Your task to perform on an android device: See recent photos Image 0: 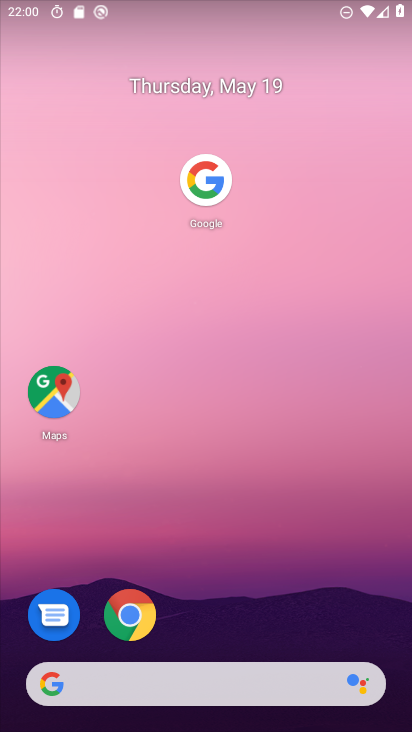
Step 0: drag from (236, 611) to (269, 38)
Your task to perform on an android device: See recent photos Image 1: 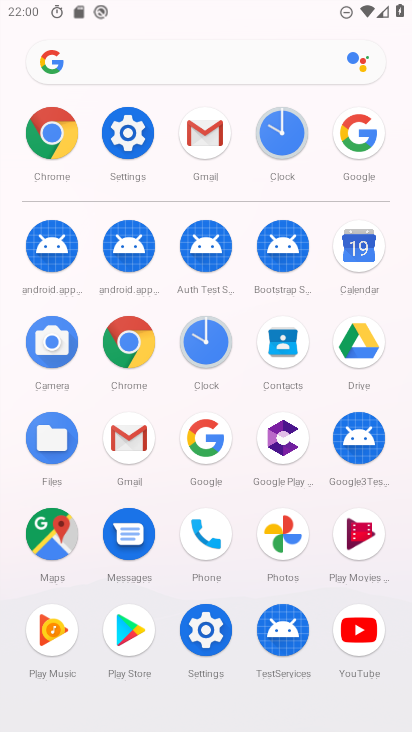
Step 1: click (287, 523)
Your task to perform on an android device: See recent photos Image 2: 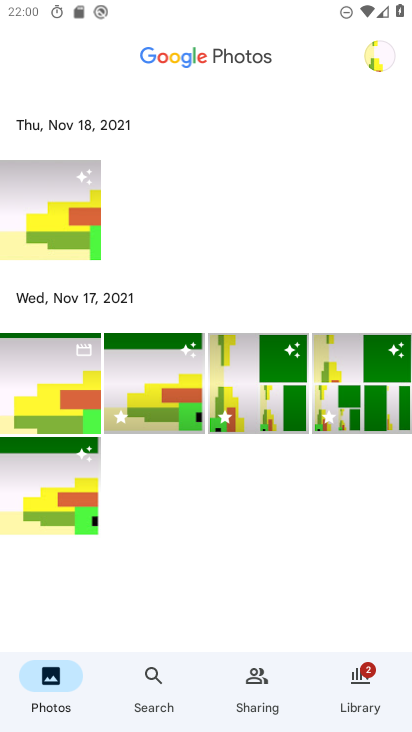
Step 2: task complete